Your task to perform on an android device: delete a single message in the gmail app Image 0: 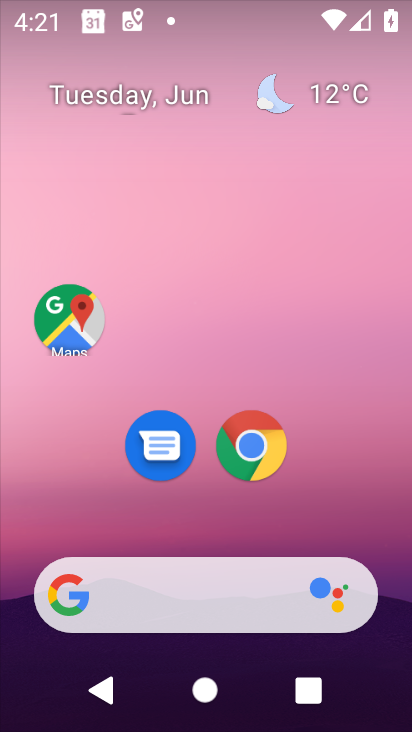
Step 0: drag from (389, 493) to (411, 134)
Your task to perform on an android device: delete a single message in the gmail app Image 1: 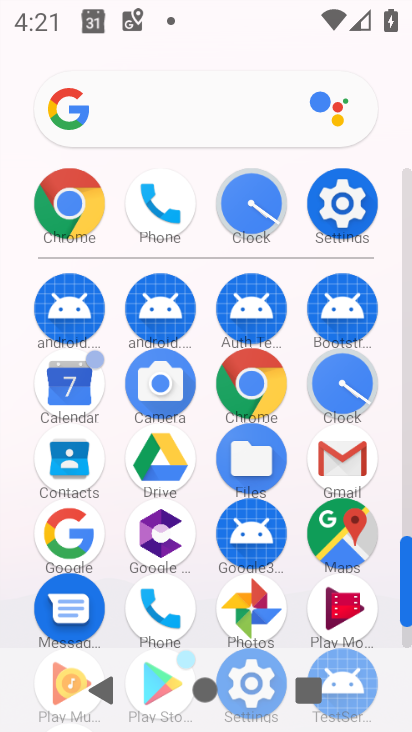
Step 1: click (359, 456)
Your task to perform on an android device: delete a single message in the gmail app Image 2: 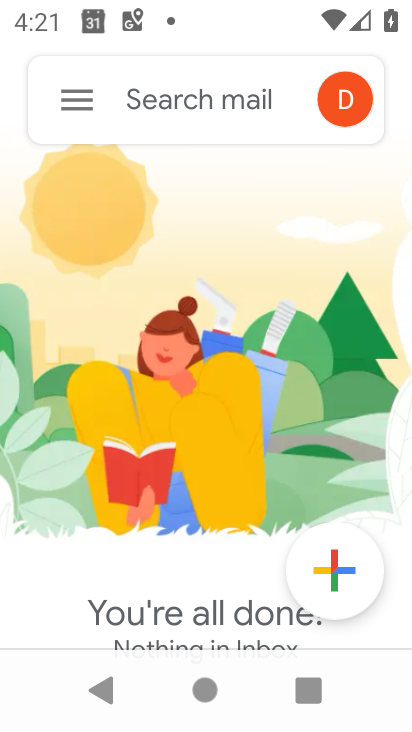
Step 2: task complete